Your task to perform on an android device: Show me some nice wallpapers for my computer Image 0: 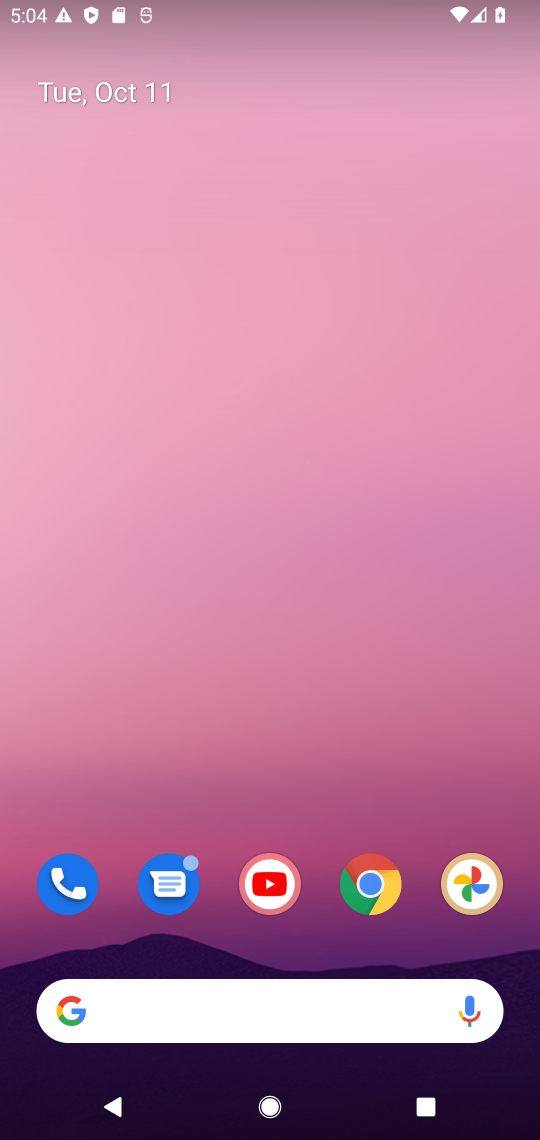
Step 0: drag from (295, 908) to (312, 27)
Your task to perform on an android device: Show me some nice wallpapers for my computer Image 1: 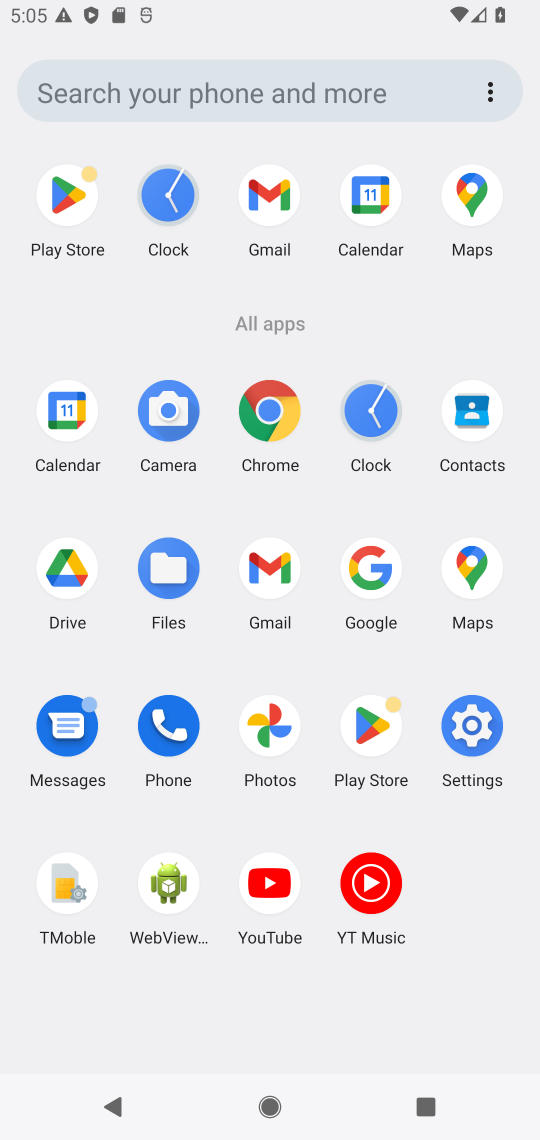
Step 1: click (277, 410)
Your task to perform on an android device: Show me some nice wallpapers for my computer Image 2: 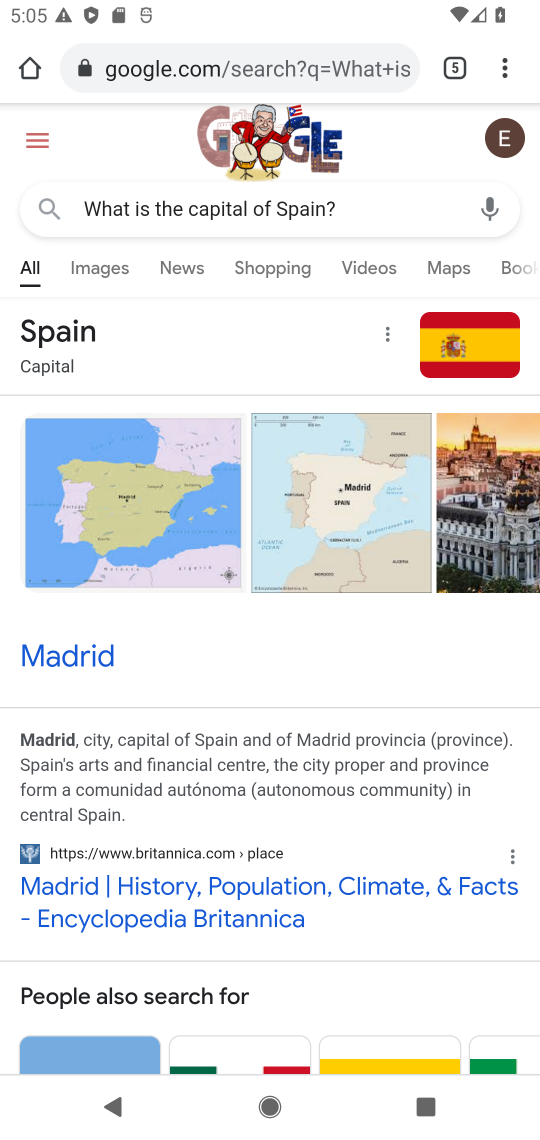
Step 2: click (385, 210)
Your task to perform on an android device: Show me some nice wallpapers for my computer Image 3: 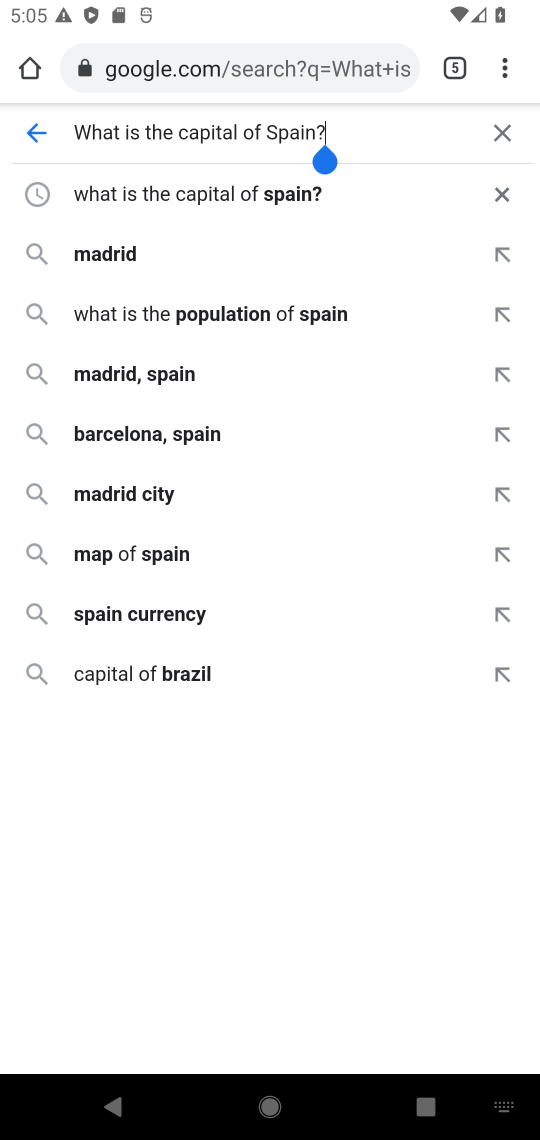
Step 3: click (500, 120)
Your task to perform on an android device: Show me some nice wallpapers for my computer Image 4: 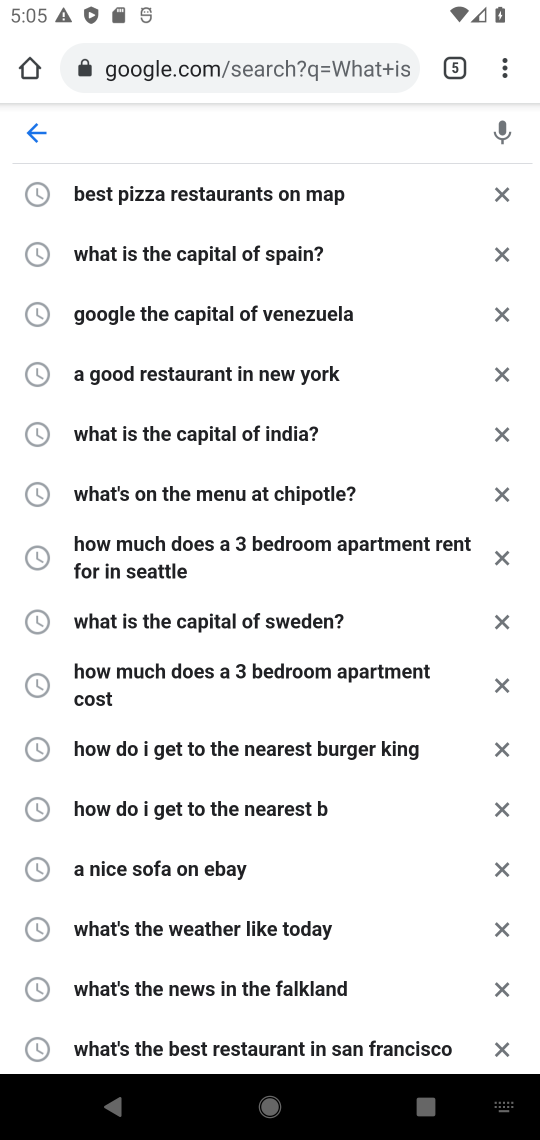
Step 4: type "Show me some nice wallpapers for my computer"
Your task to perform on an android device: Show me some nice wallpapers for my computer Image 5: 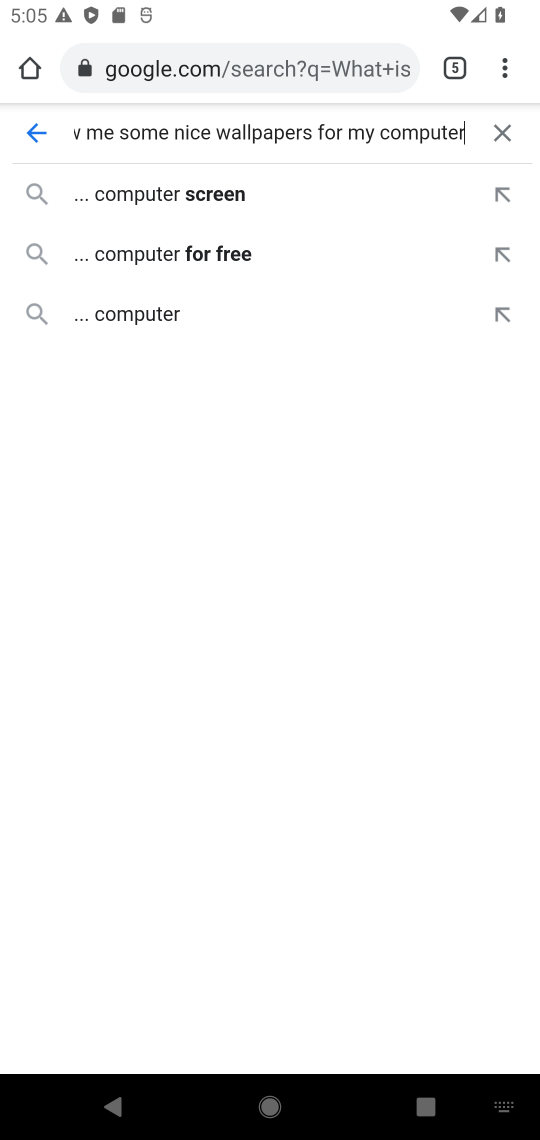
Step 5: click (146, 310)
Your task to perform on an android device: Show me some nice wallpapers for my computer Image 6: 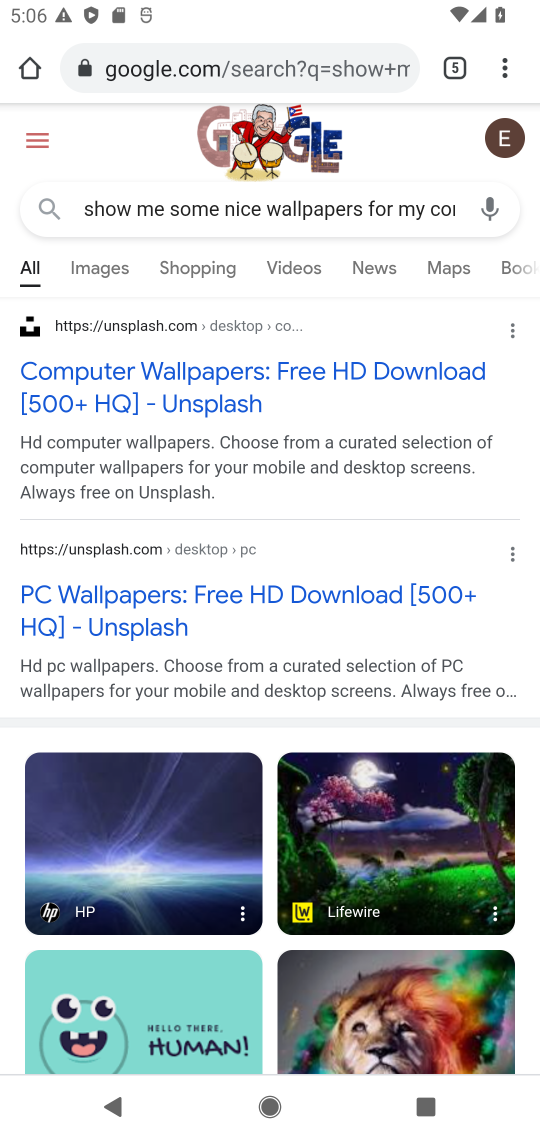
Step 6: click (240, 371)
Your task to perform on an android device: Show me some nice wallpapers for my computer Image 7: 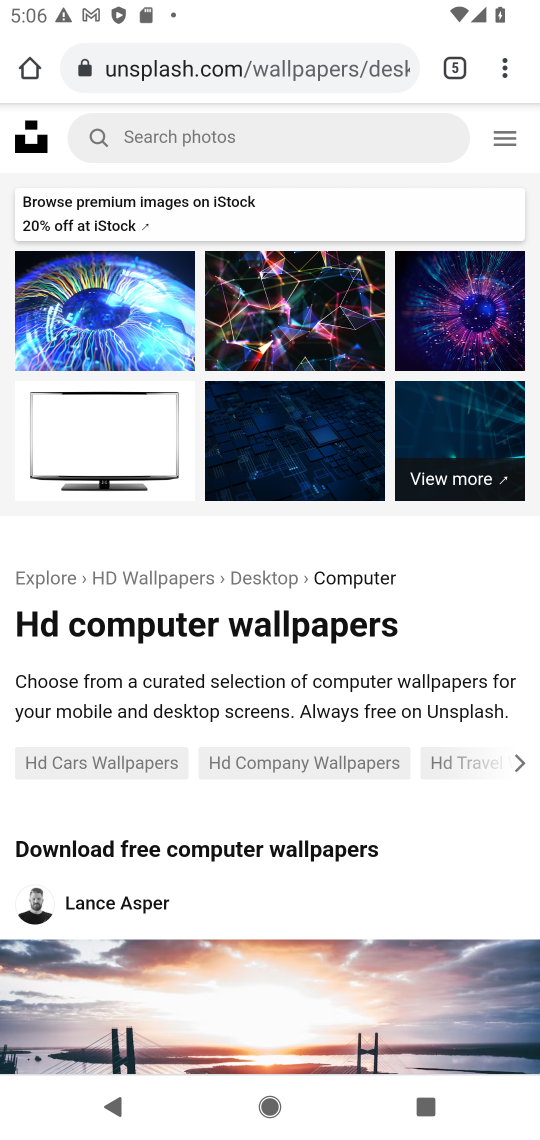
Step 7: task complete